Your task to perform on an android device: Open Google Image 0: 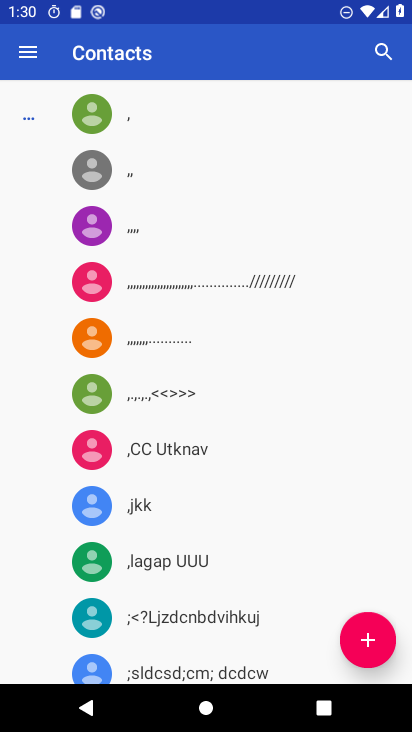
Step 0: press home button
Your task to perform on an android device: Open Google Image 1: 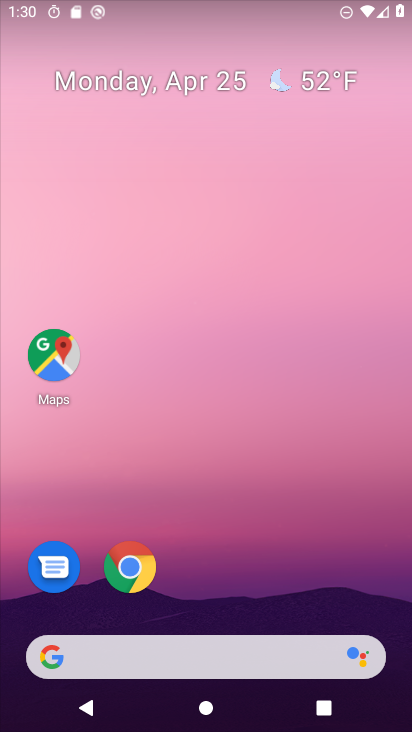
Step 1: click (55, 347)
Your task to perform on an android device: Open Google Image 2: 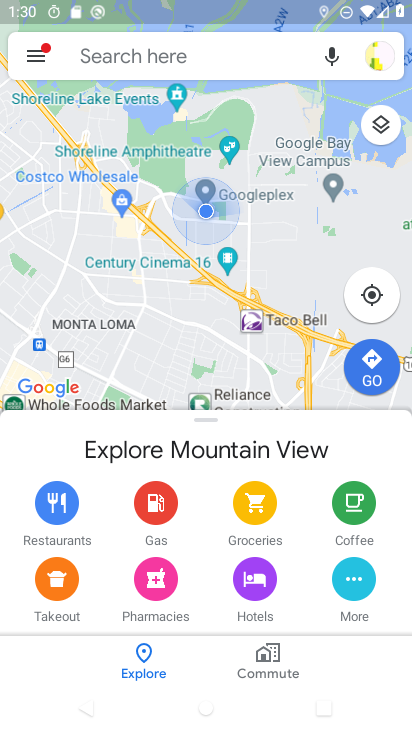
Step 2: task complete